Your task to perform on an android device: turn off sleep mode Image 0: 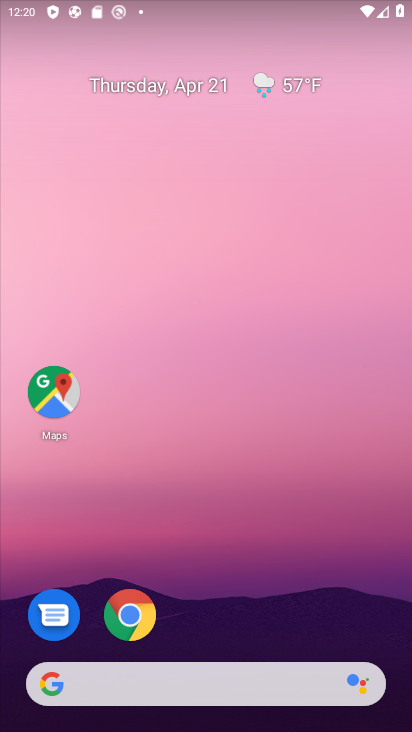
Step 0: drag from (267, 419) to (187, 162)
Your task to perform on an android device: turn off sleep mode Image 1: 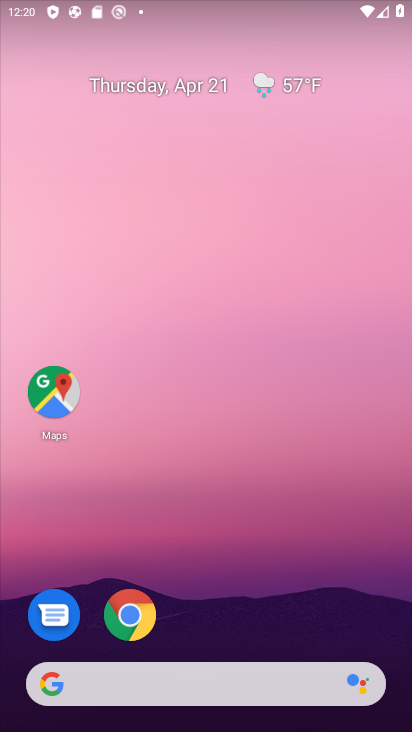
Step 1: task complete